Your task to perform on an android device: change notifications settings Image 0: 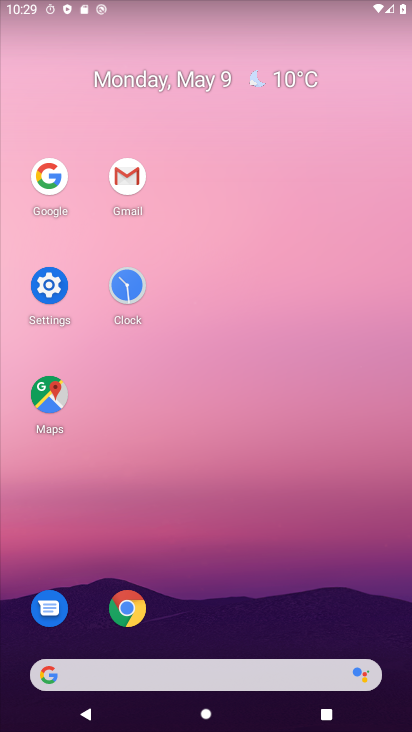
Step 0: click (44, 290)
Your task to perform on an android device: change notifications settings Image 1: 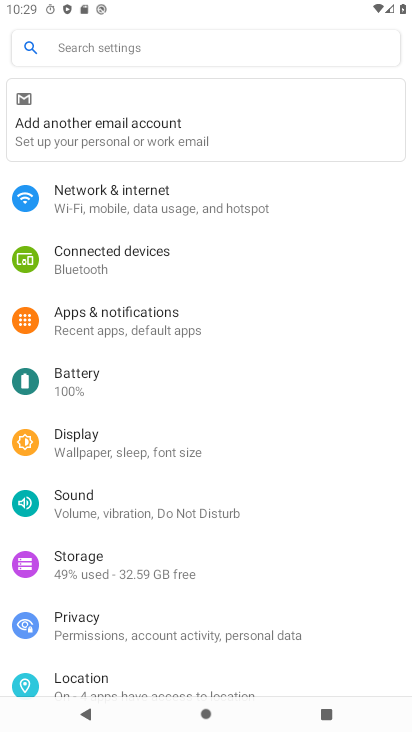
Step 1: click (123, 309)
Your task to perform on an android device: change notifications settings Image 2: 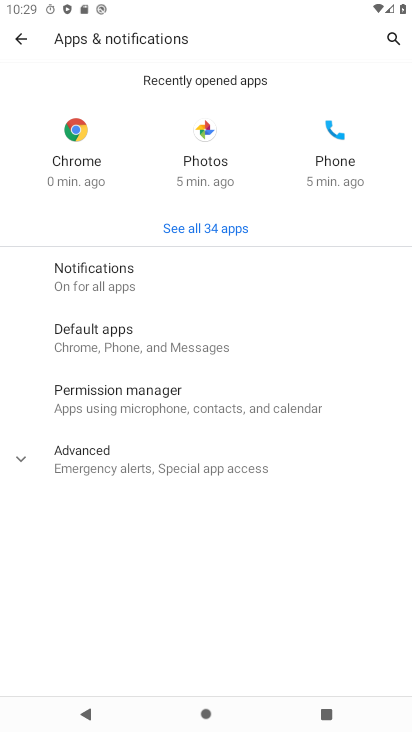
Step 2: click (118, 274)
Your task to perform on an android device: change notifications settings Image 3: 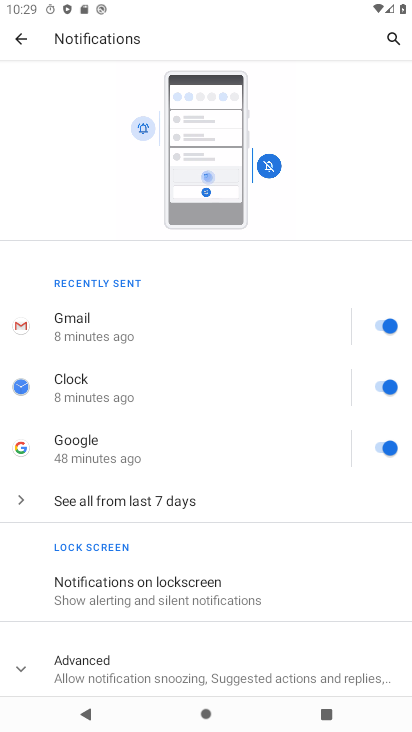
Step 3: click (75, 658)
Your task to perform on an android device: change notifications settings Image 4: 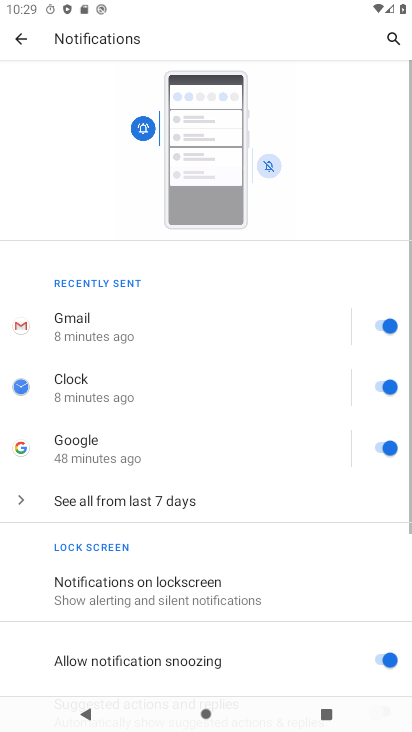
Step 4: drag from (323, 588) to (344, 25)
Your task to perform on an android device: change notifications settings Image 5: 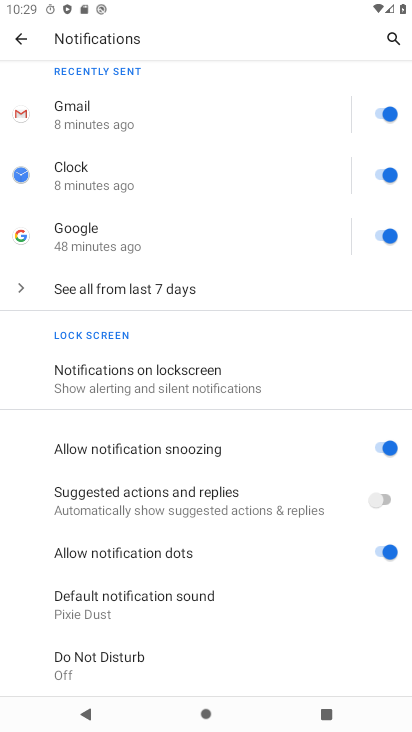
Step 5: click (389, 445)
Your task to perform on an android device: change notifications settings Image 6: 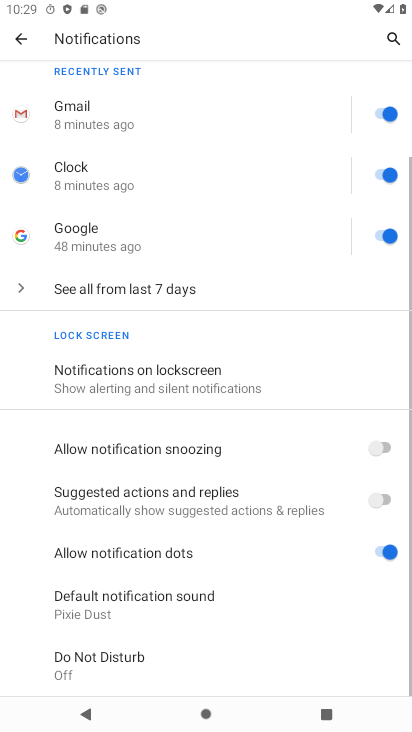
Step 6: click (378, 498)
Your task to perform on an android device: change notifications settings Image 7: 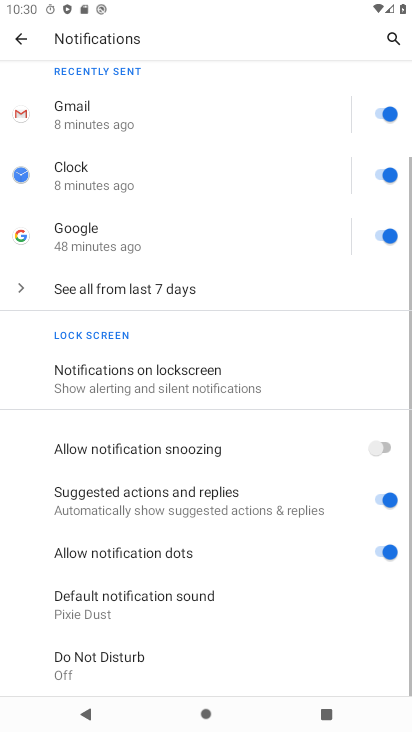
Step 7: click (383, 541)
Your task to perform on an android device: change notifications settings Image 8: 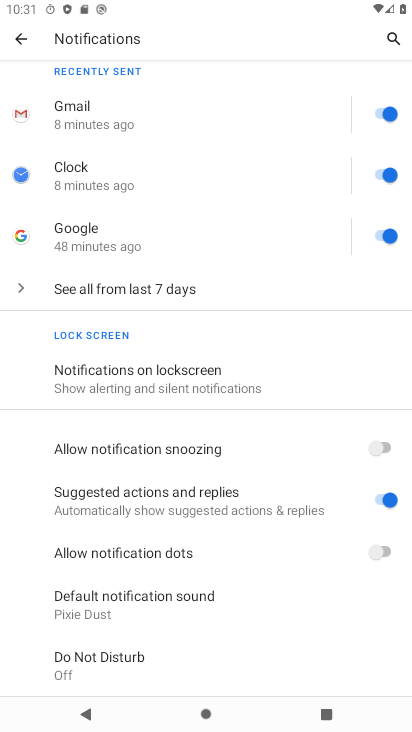
Step 8: task complete